Your task to perform on an android device: Go to settings Image 0: 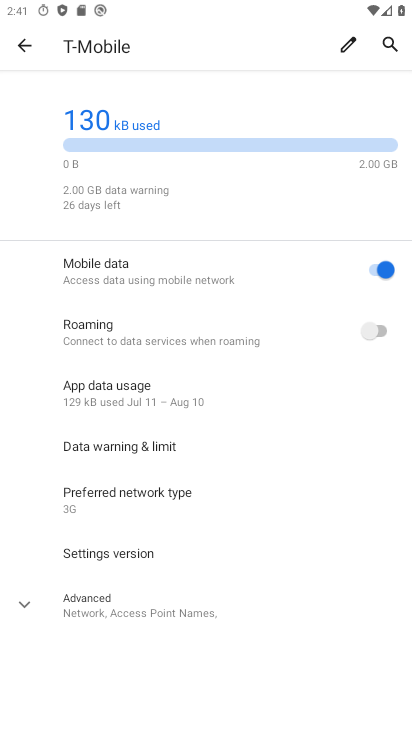
Step 0: task complete